Your task to perform on an android device: Add jbl charge 4 to the cart on target, then select checkout. Image 0: 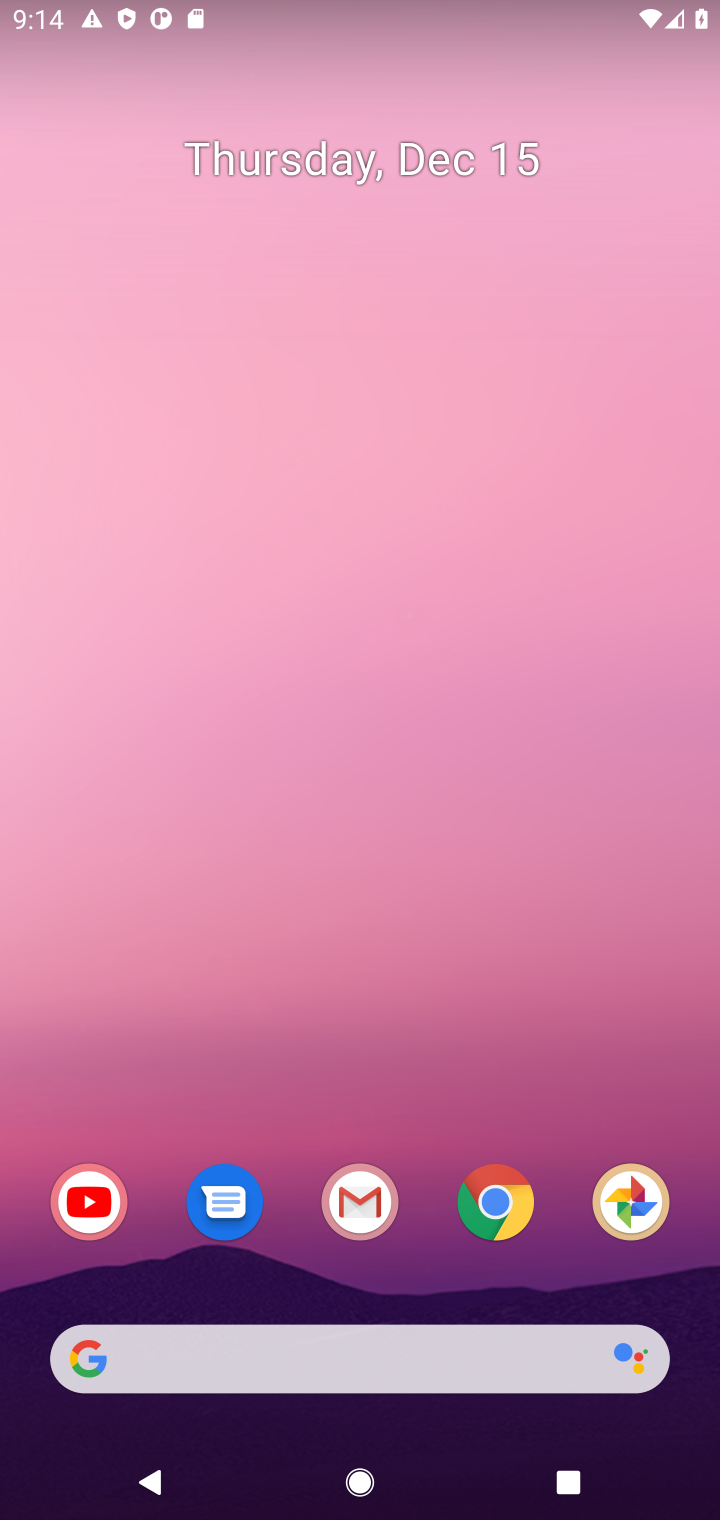
Step 0: click (494, 1202)
Your task to perform on an android device: Add jbl charge 4 to the cart on target, then select checkout. Image 1: 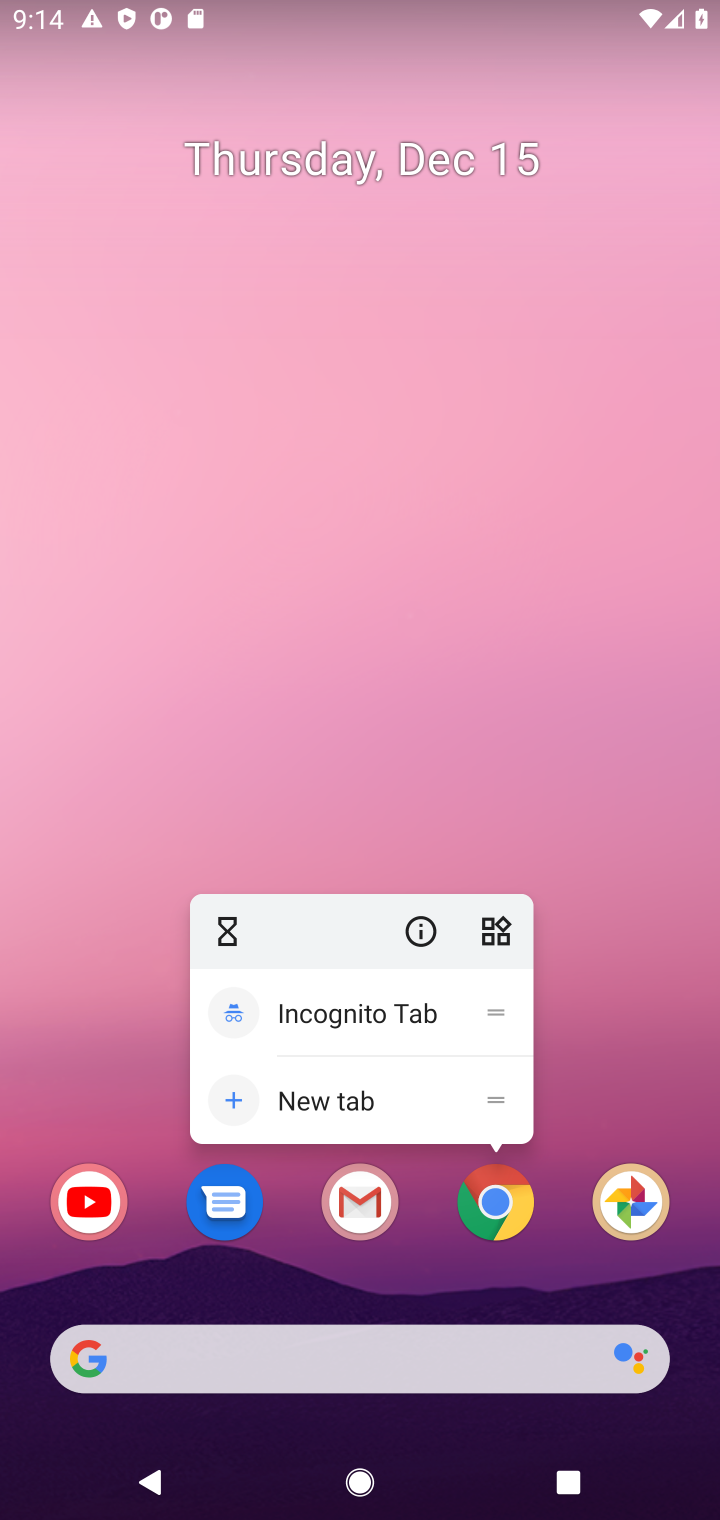
Step 1: click (494, 1202)
Your task to perform on an android device: Add jbl charge 4 to the cart on target, then select checkout. Image 2: 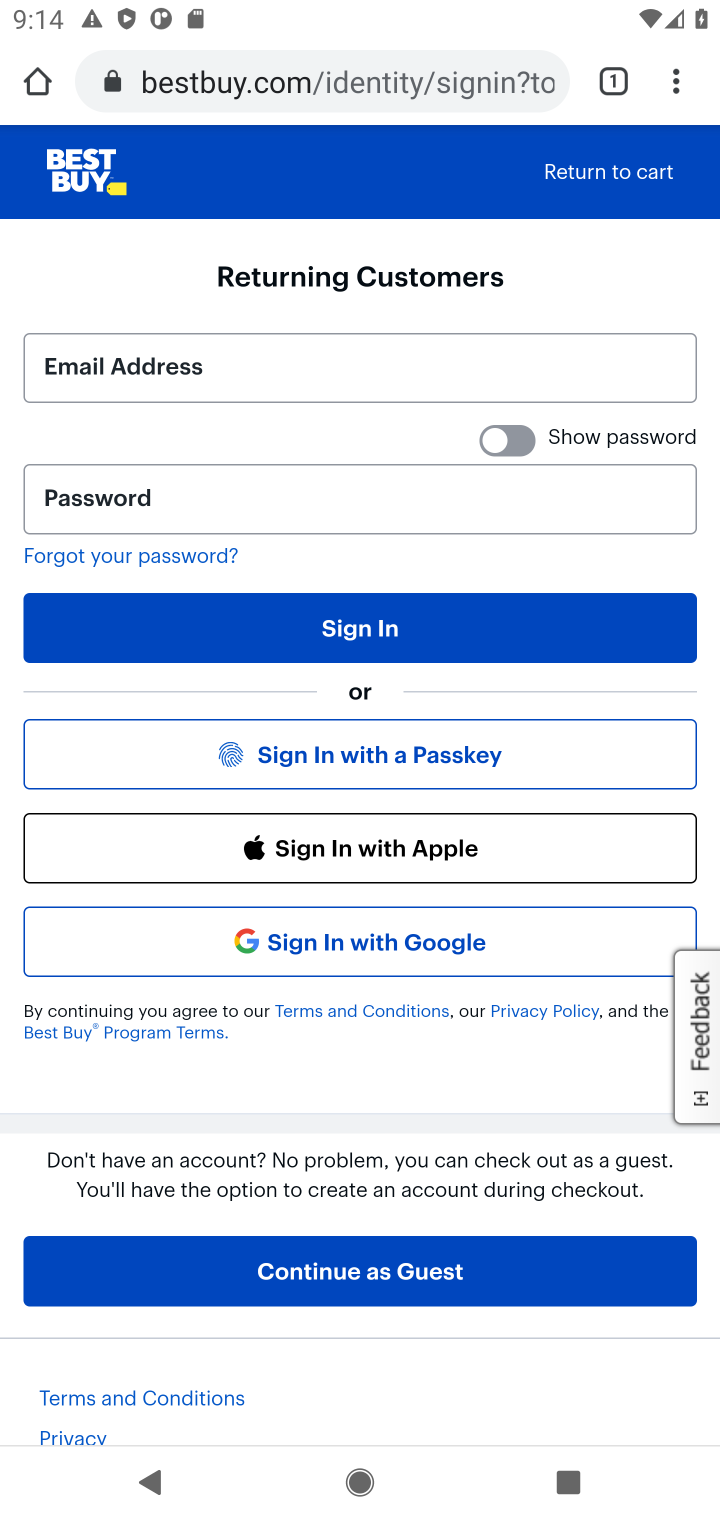
Step 2: click (282, 90)
Your task to perform on an android device: Add jbl charge 4 to the cart on target, then select checkout. Image 3: 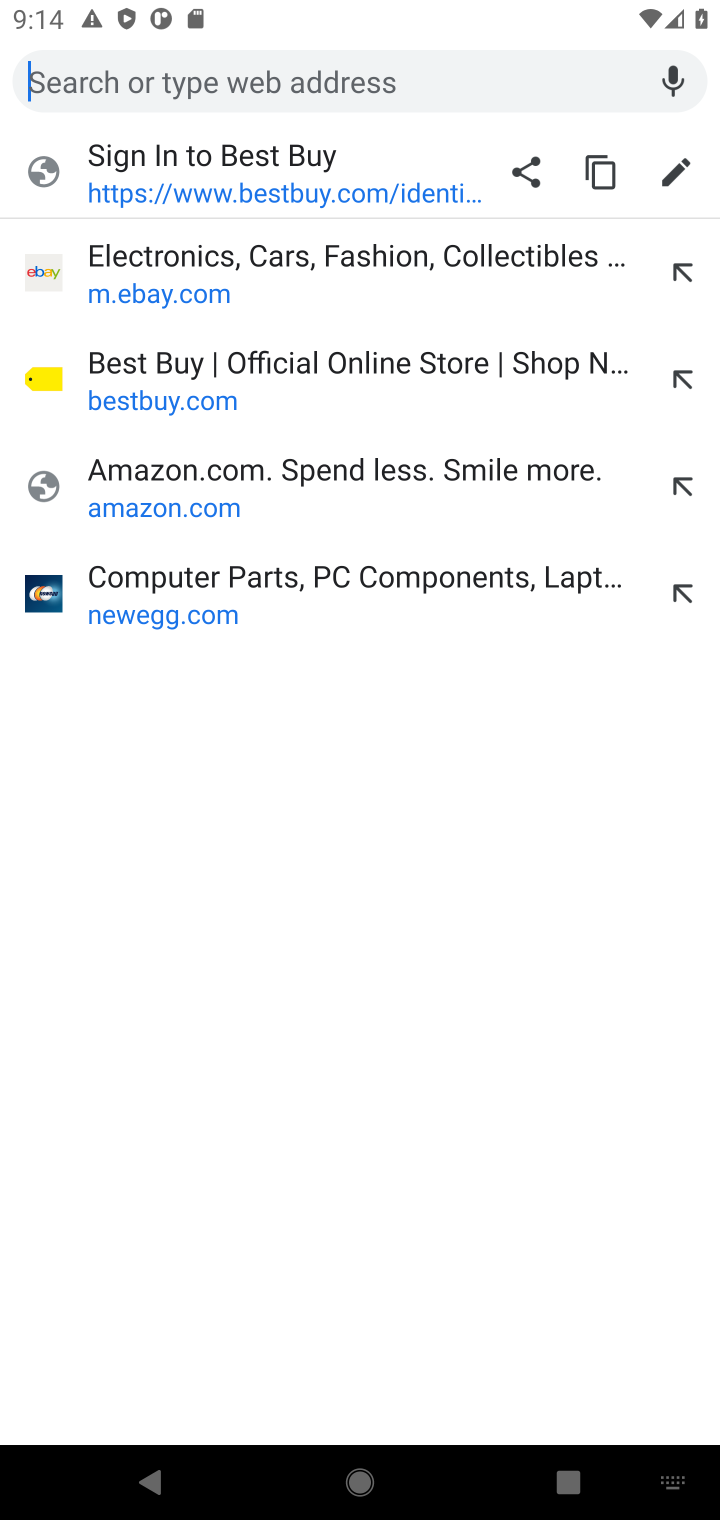
Step 3: type "target.com"
Your task to perform on an android device: Add jbl charge 4 to the cart on target, then select checkout. Image 4: 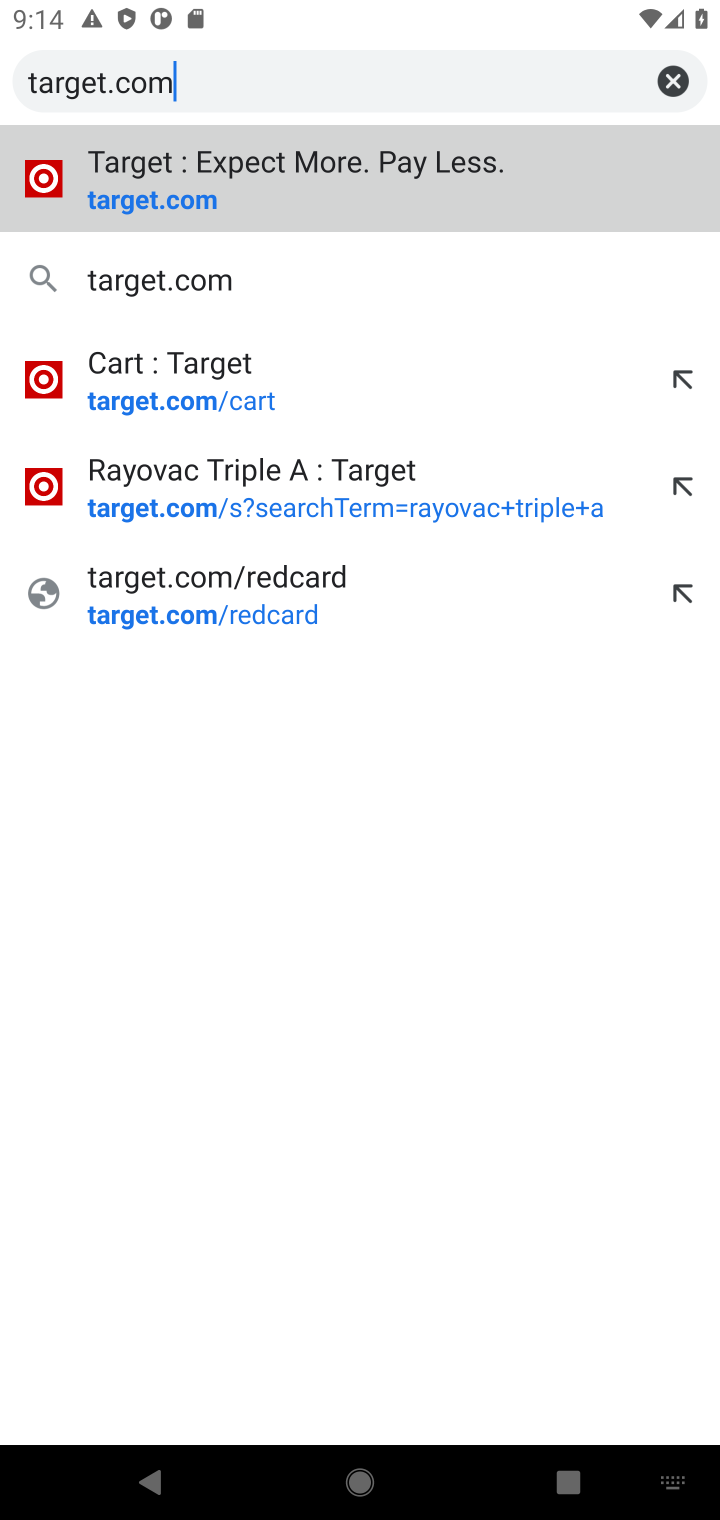
Step 4: click (155, 221)
Your task to perform on an android device: Add jbl charge 4 to the cart on target, then select checkout. Image 5: 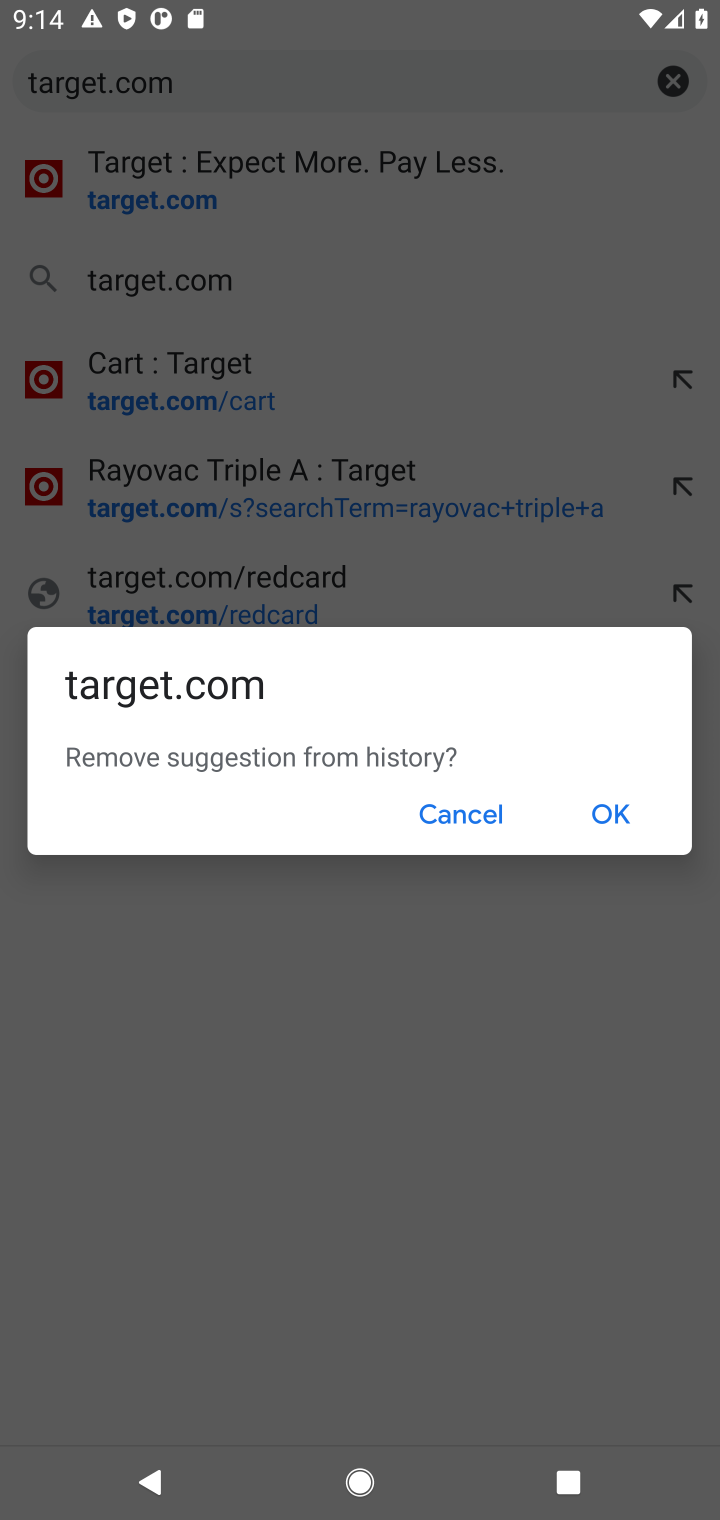
Step 5: click (463, 812)
Your task to perform on an android device: Add jbl charge 4 to the cart on target, then select checkout. Image 6: 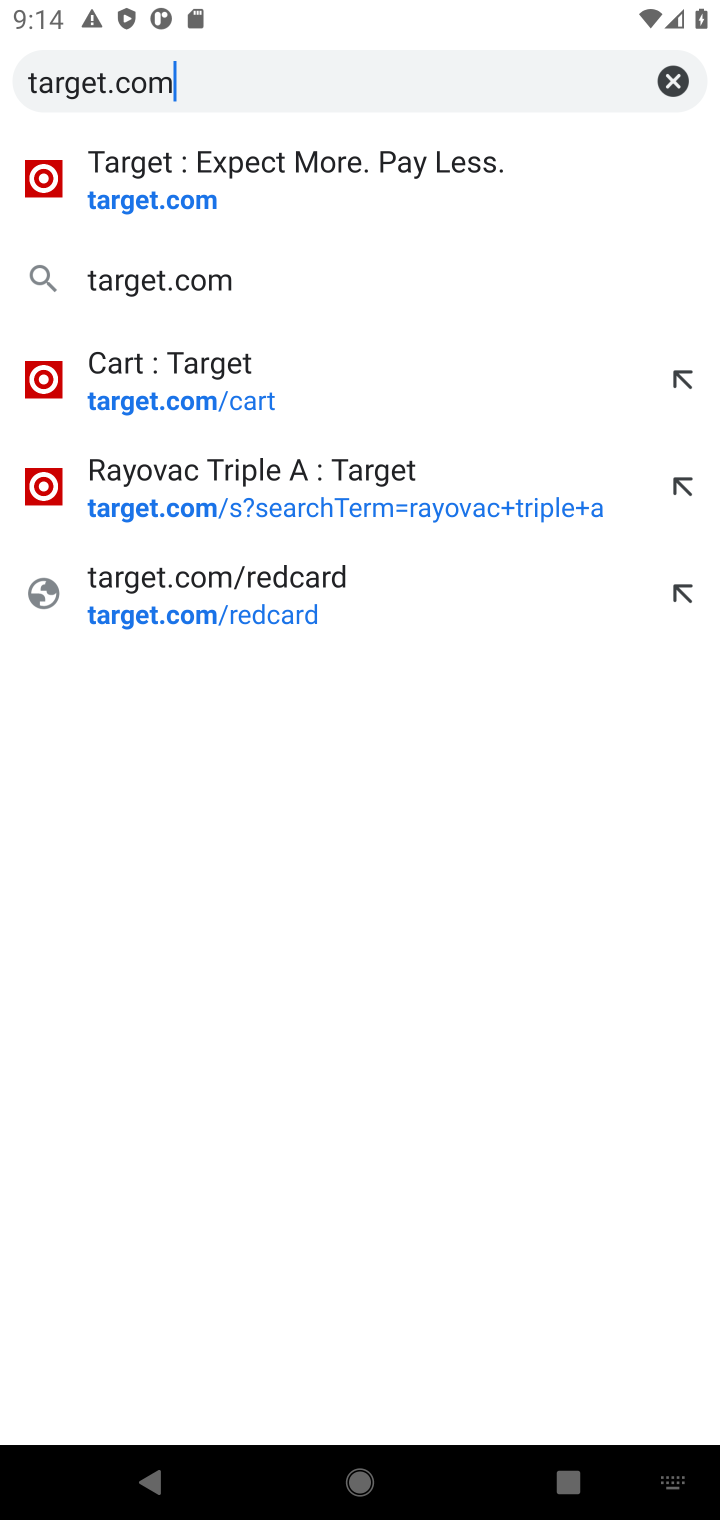
Step 6: click (107, 211)
Your task to perform on an android device: Add jbl charge 4 to the cart on target, then select checkout. Image 7: 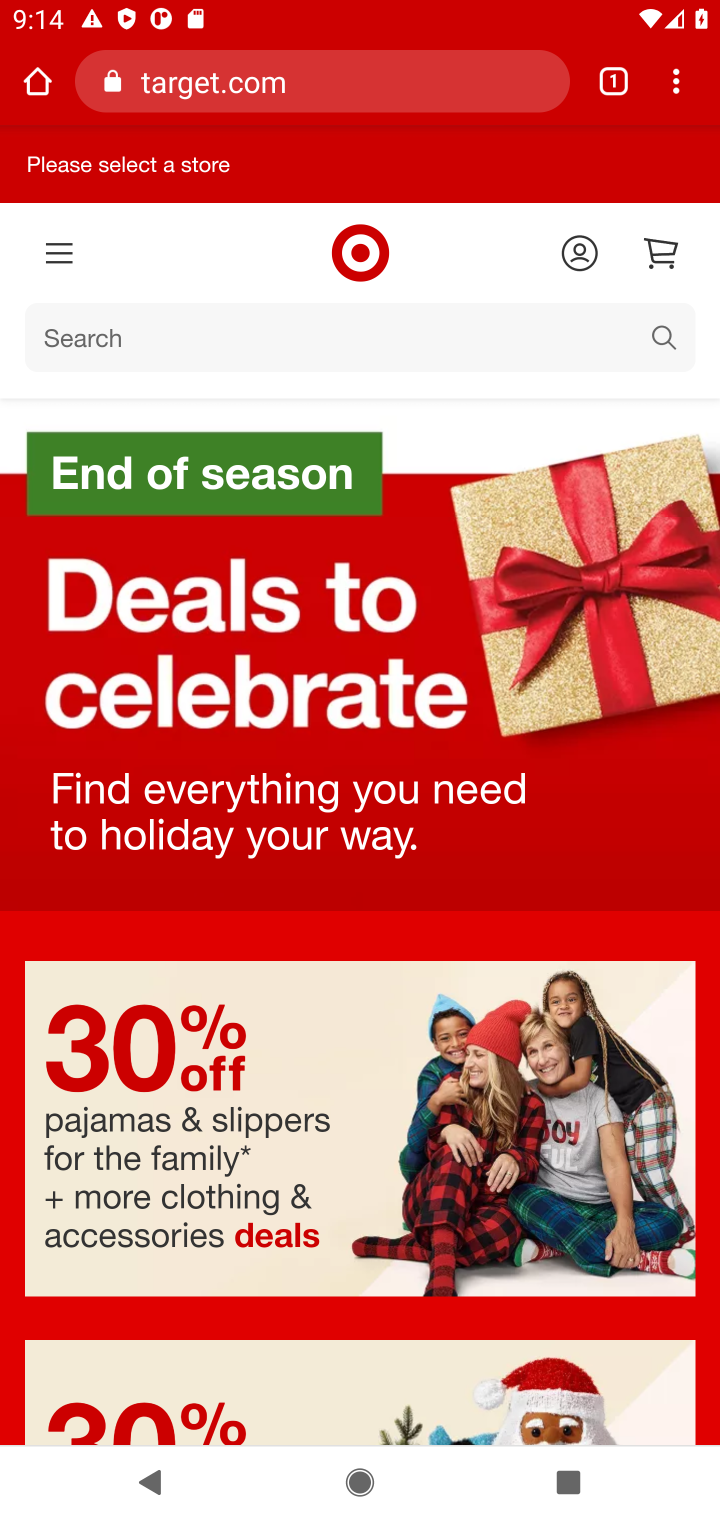
Step 7: click (73, 337)
Your task to perform on an android device: Add jbl charge 4 to the cart on target, then select checkout. Image 8: 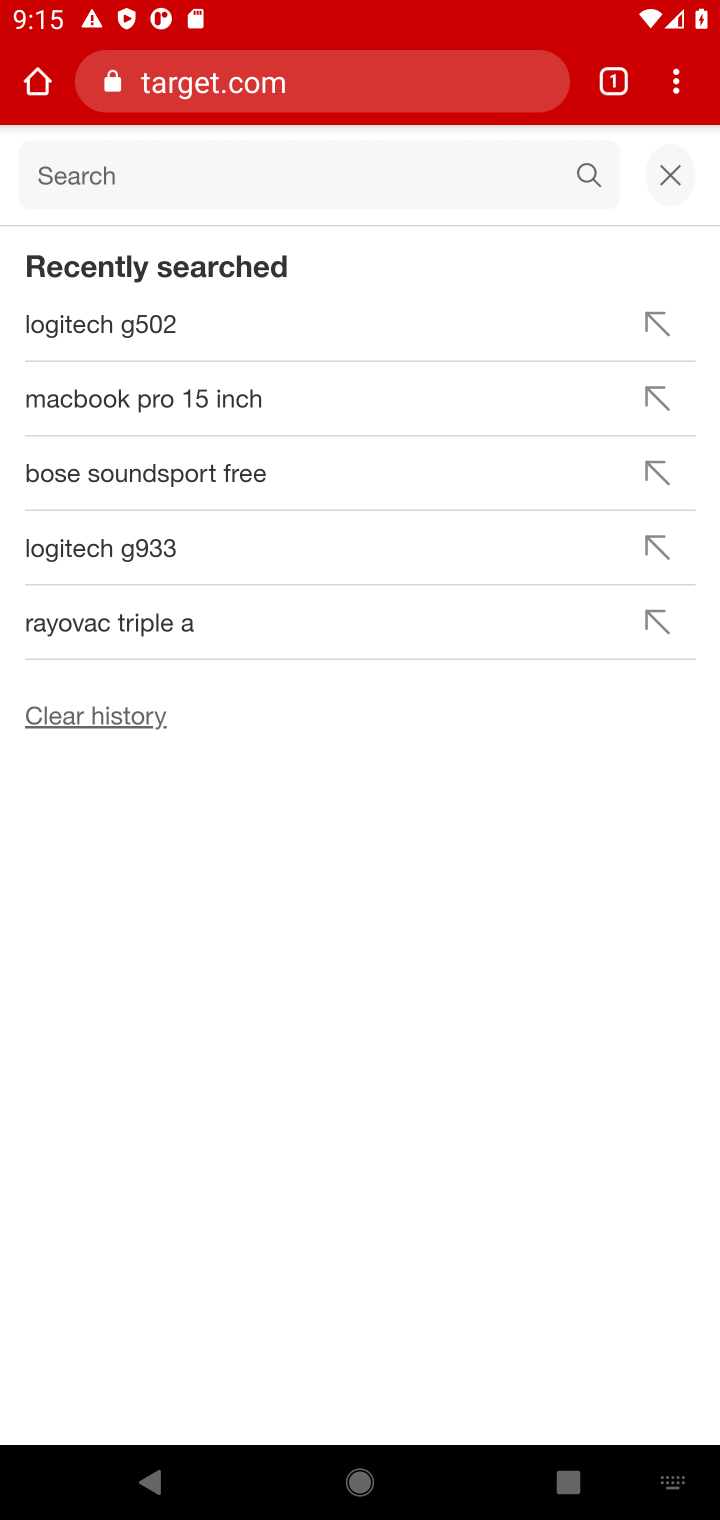
Step 8: type "jbl charge 4"
Your task to perform on an android device: Add jbl charge 4 to the cart on target, then select checkout. Image 9: 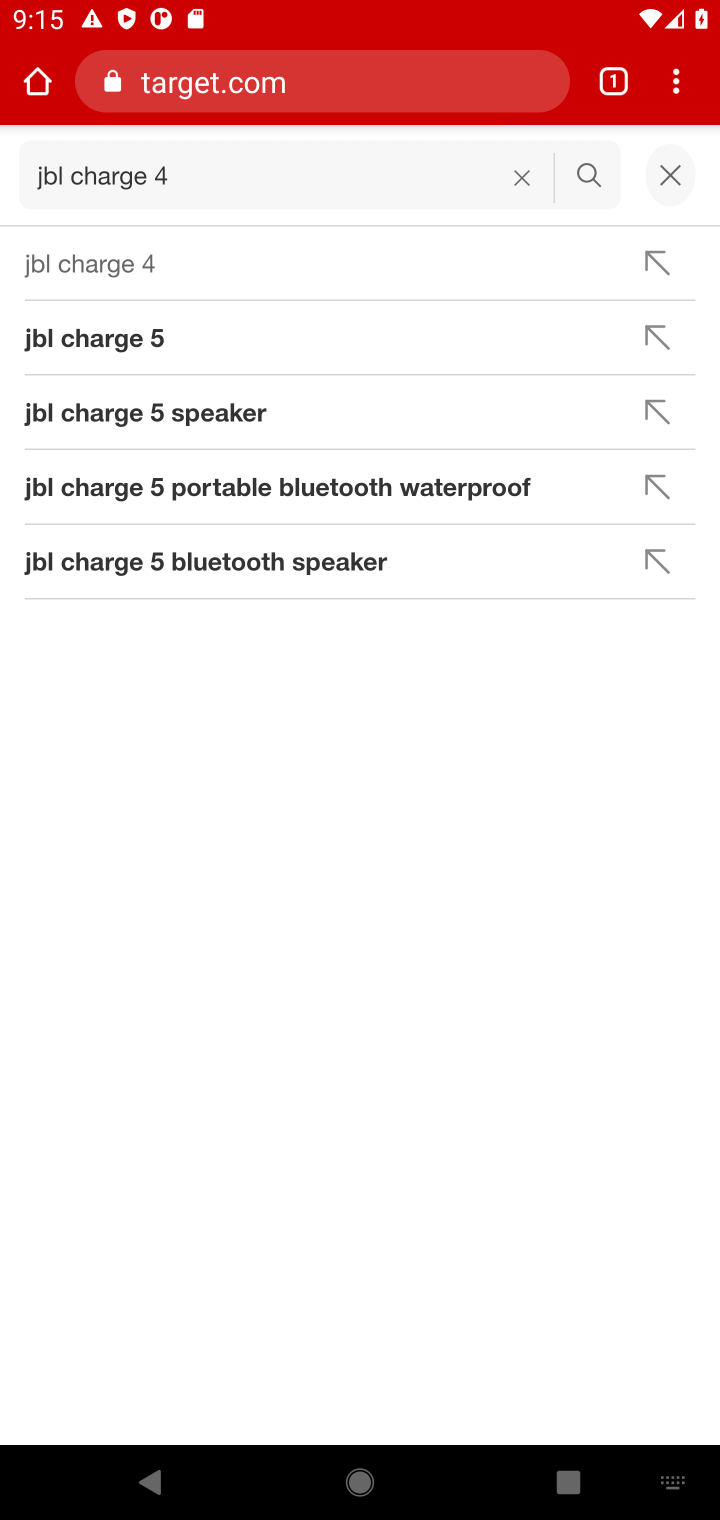
Step 9: click (94, 263)
Your task to perform on an android device: Add jbl charge 4 to the cart on target, then select checkout. Image 10: 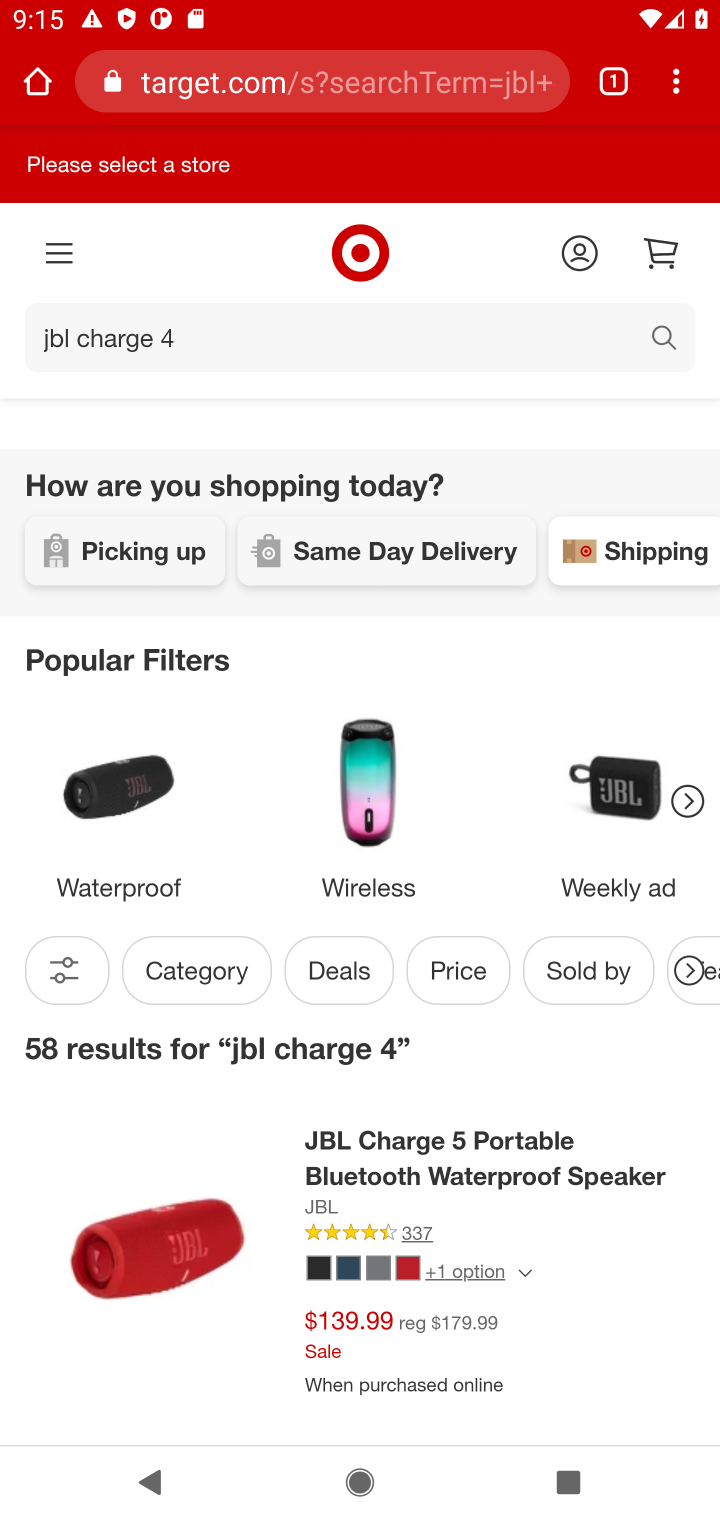
Step 10: drag from (216, 1058) to (224, 592)
Your task to perform on an android device: Add jbl charge 4 to the cart on target, then select checkout. Image 11: 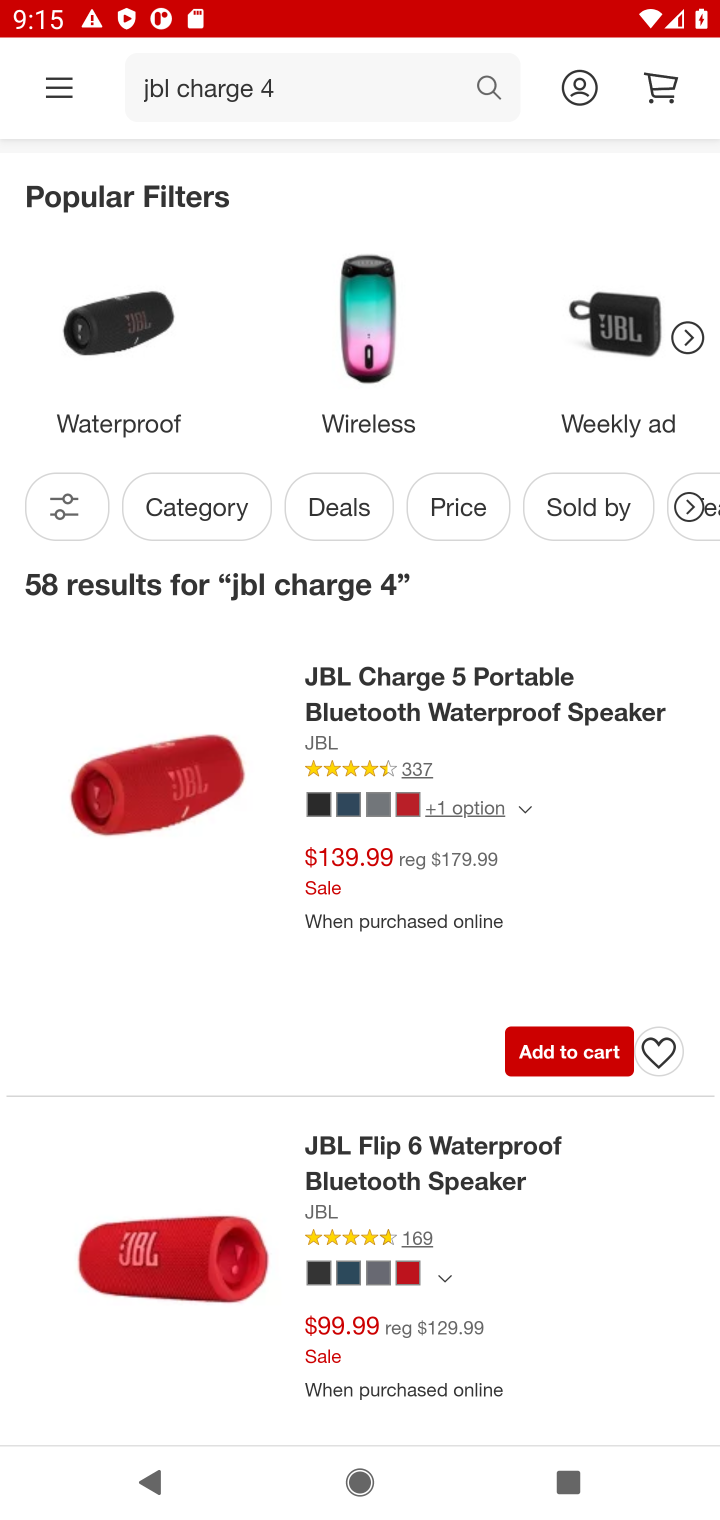
Step 11: drag from (198, 959) to (228, 603)
Your task to perform on an android device: Add jbl charge 4 to the cart on target, then select checkout. Image 12: 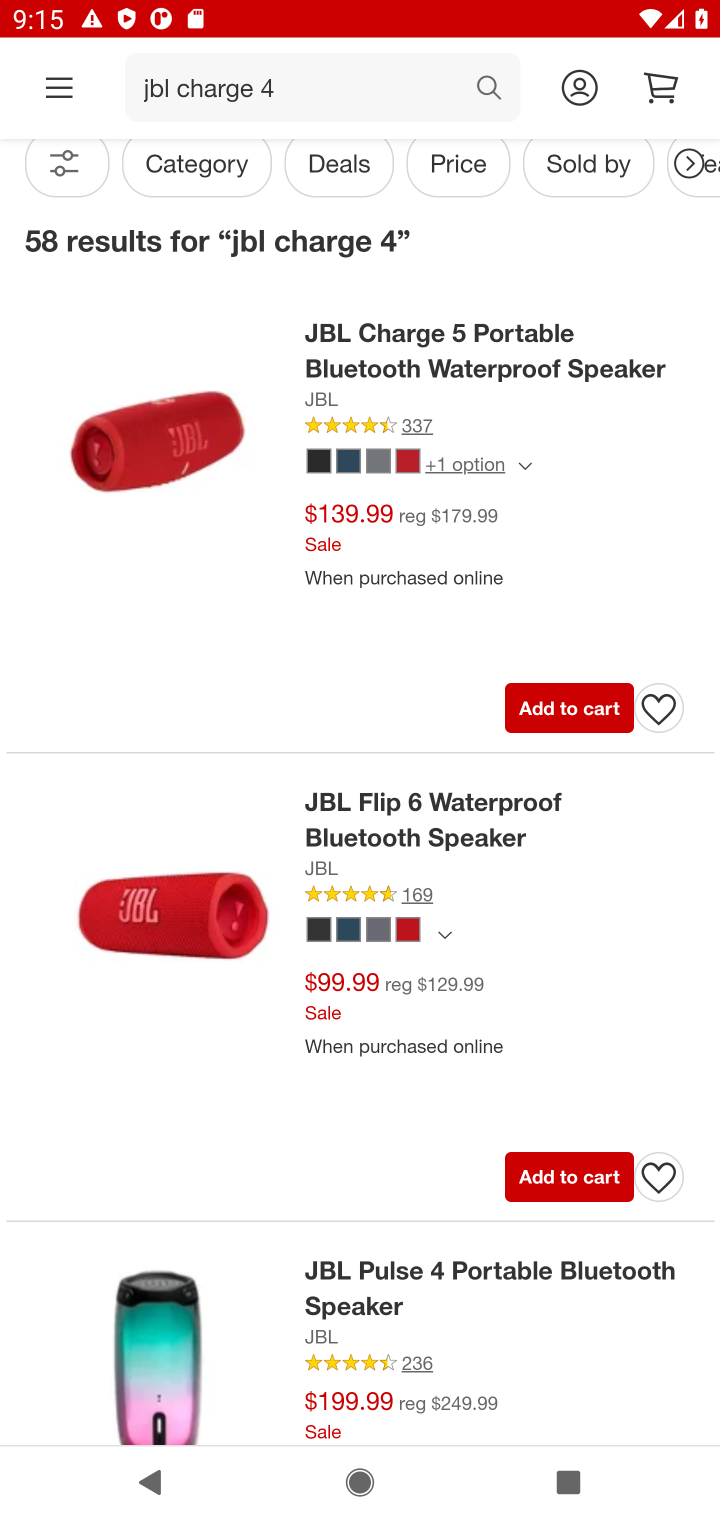
Step 12: drag from (201, 1078) to (223, 476)
Your task to perform on an android device: Add jbl charge 4 to the cart on target, then select checkout. Image 13: 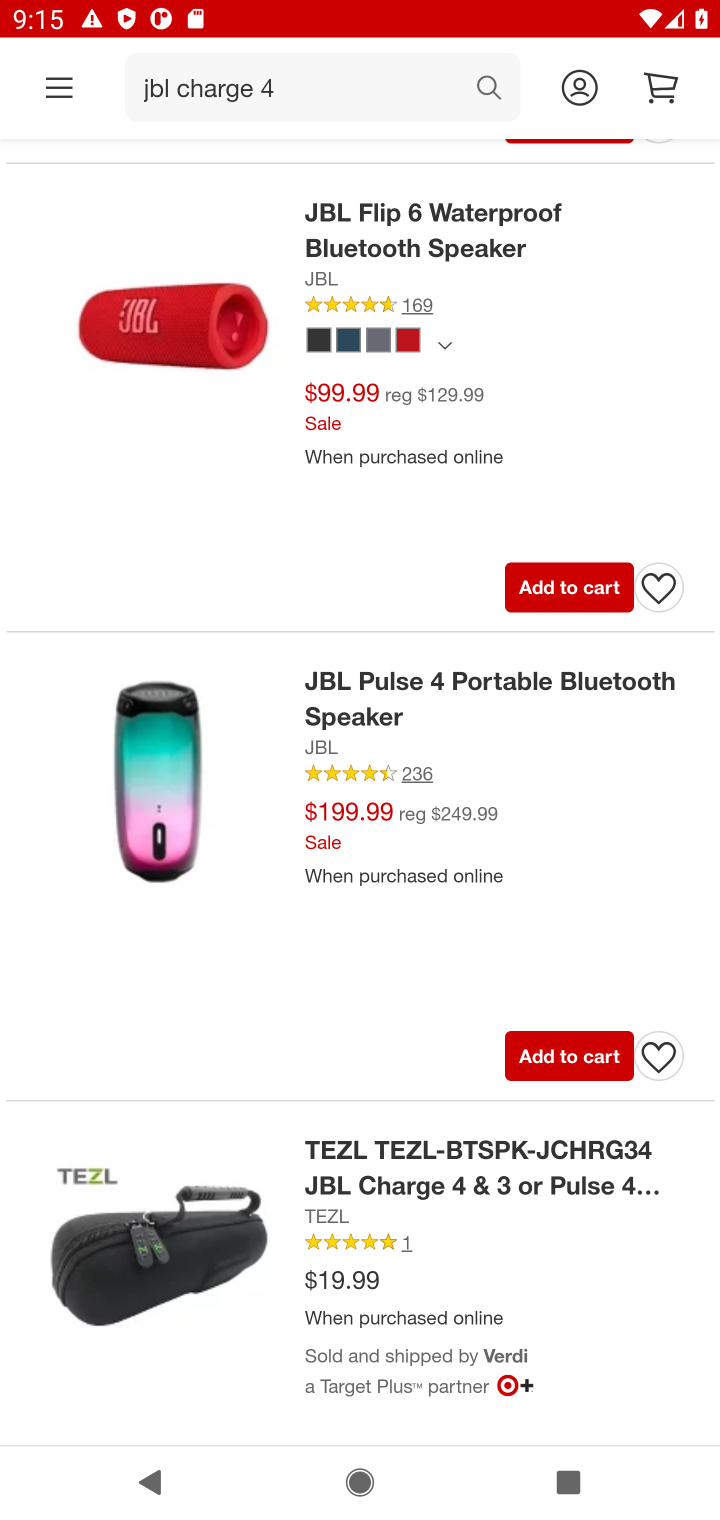
Step 13: drag from (193, 1080) to (215, 665)
Your task to perform on an android device: Add jbl charge 4 to the cart on target, then select checkout. Image 14: 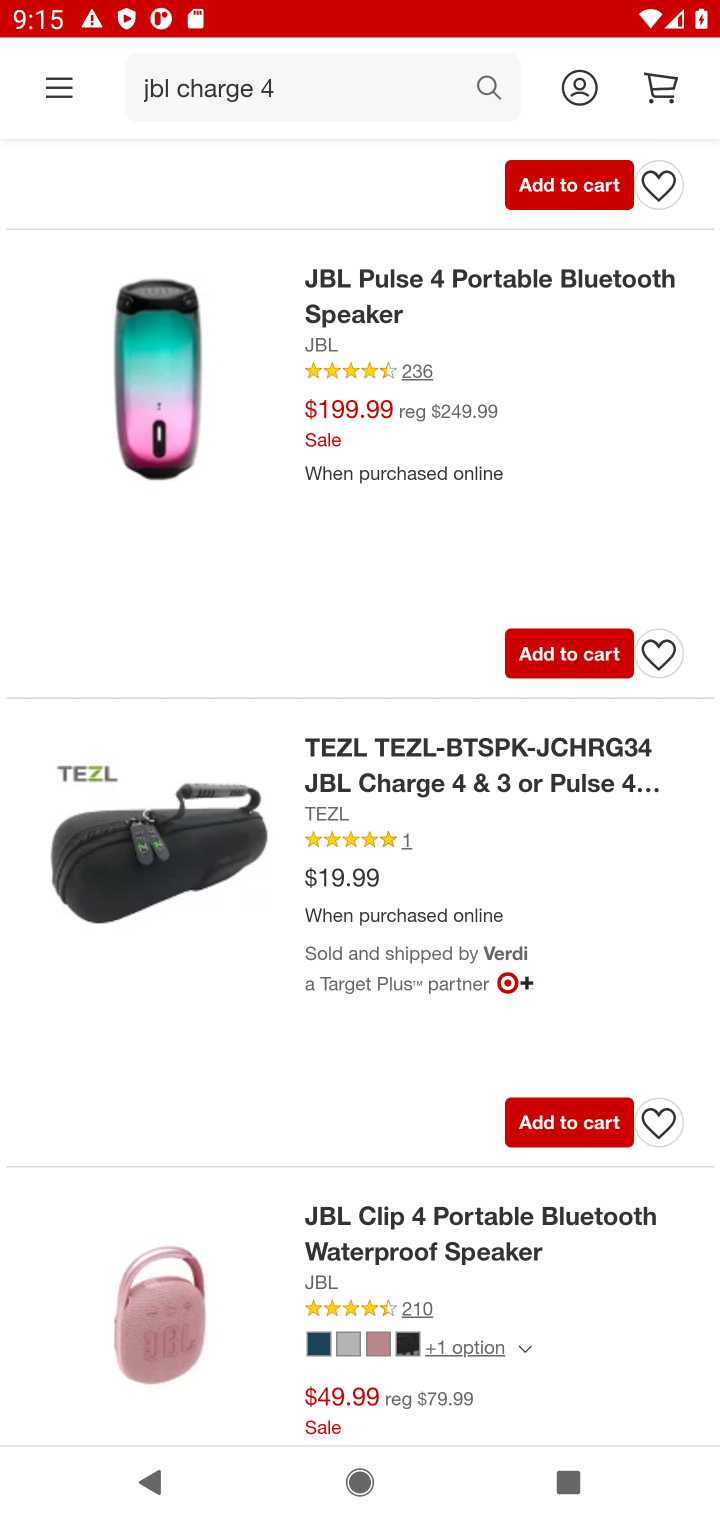
Step 14: click (562, 1116)
Your task to perform on an android device: Add jbl charge 4 to the cart on target, then select checkout. Image 15: 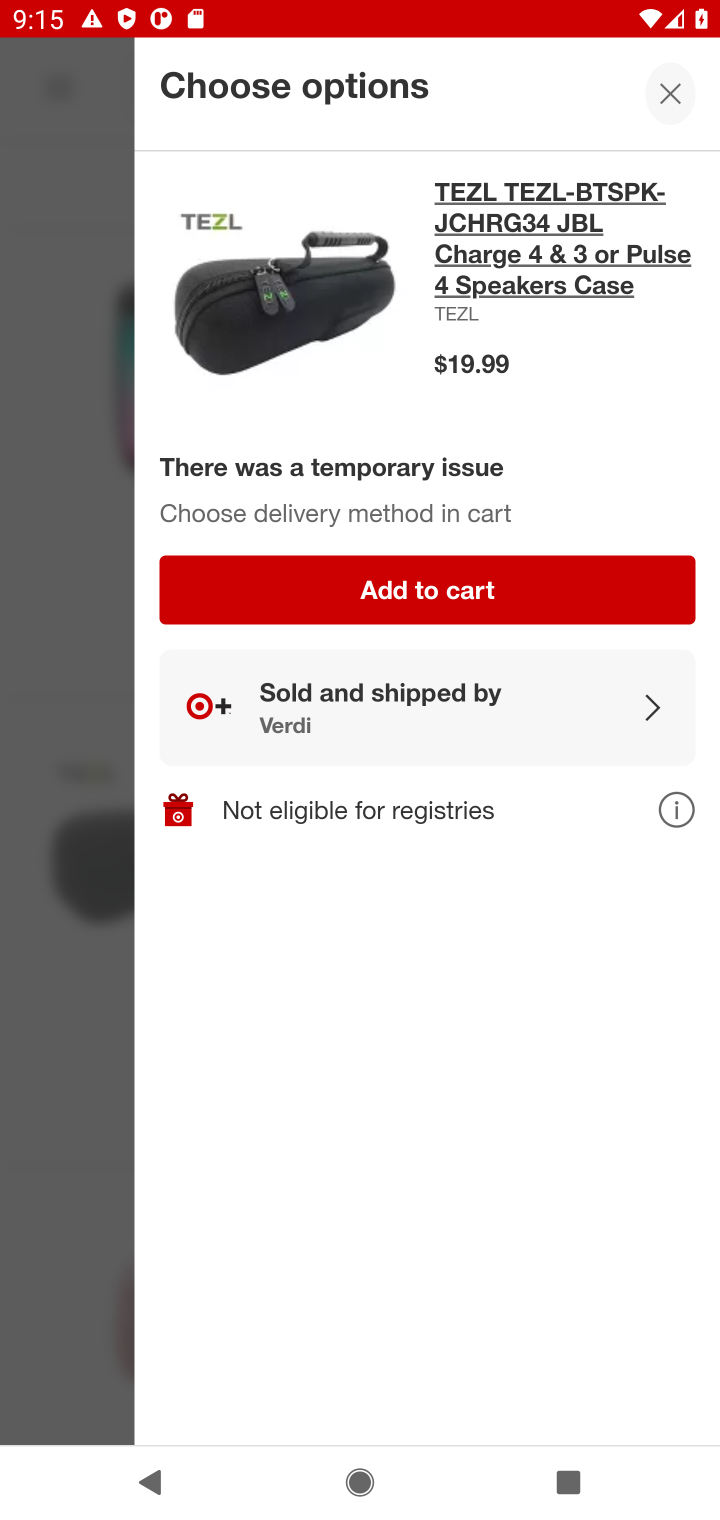
Step 15: click (379, 606)
Your task to perform on an android device: Add jbl charge 4 to the cart on target, then select checkout. Image 16: 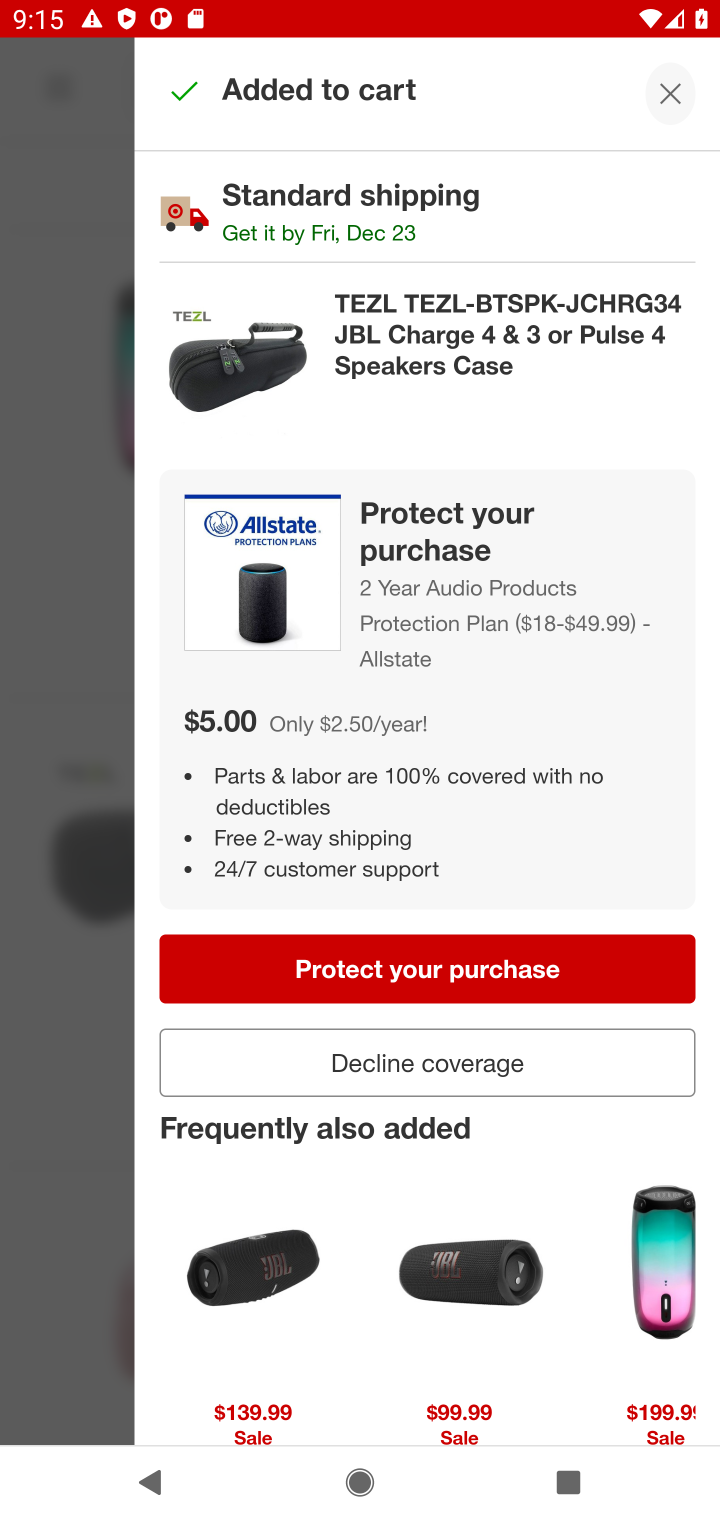
Step 16: click (673, 104)
Your task to perform on an android device: Add jbl charge 4 to the cart on target, then select checkout. Image 17: 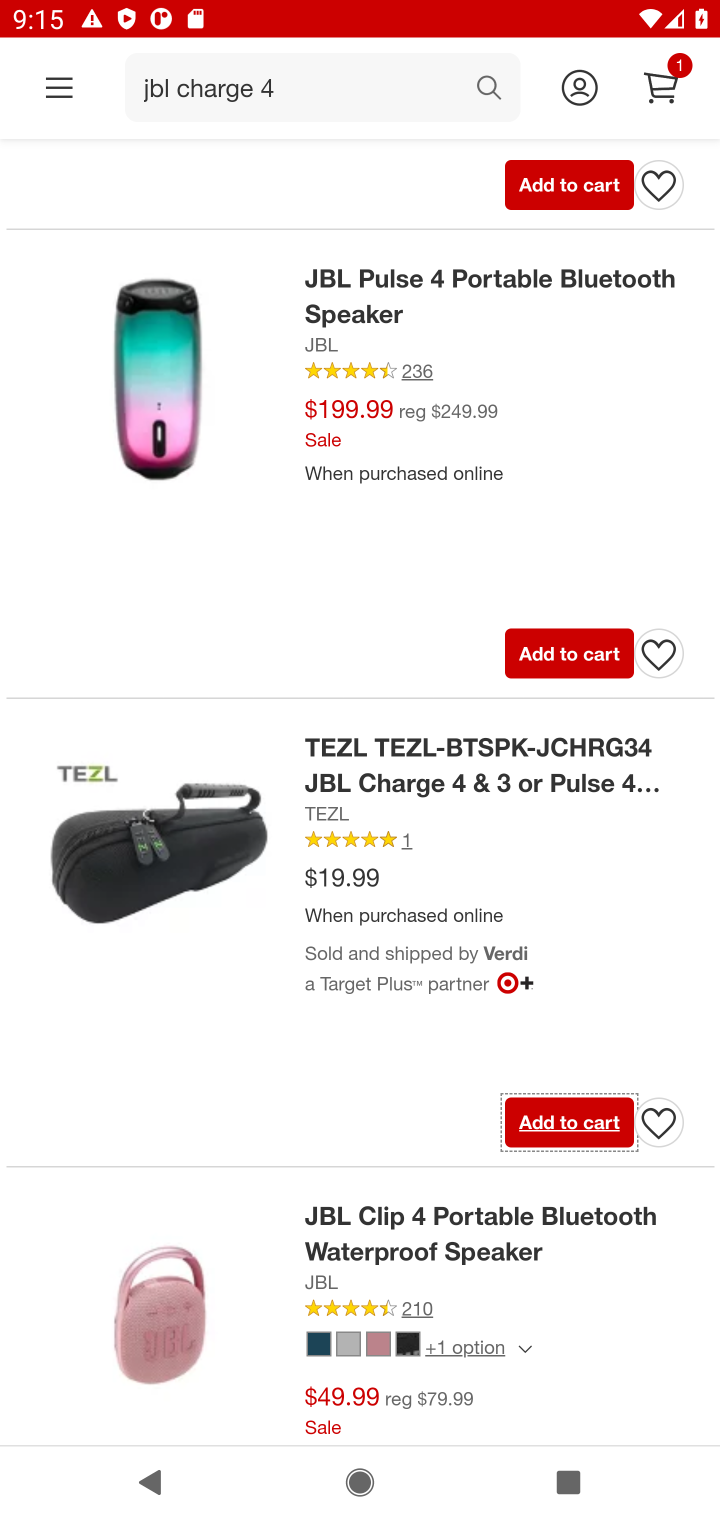
Step 17: click (664, 82)
Your task to perform on an android device: Add jbl charge 4 to the cart on target, then select checkout. Image 18: 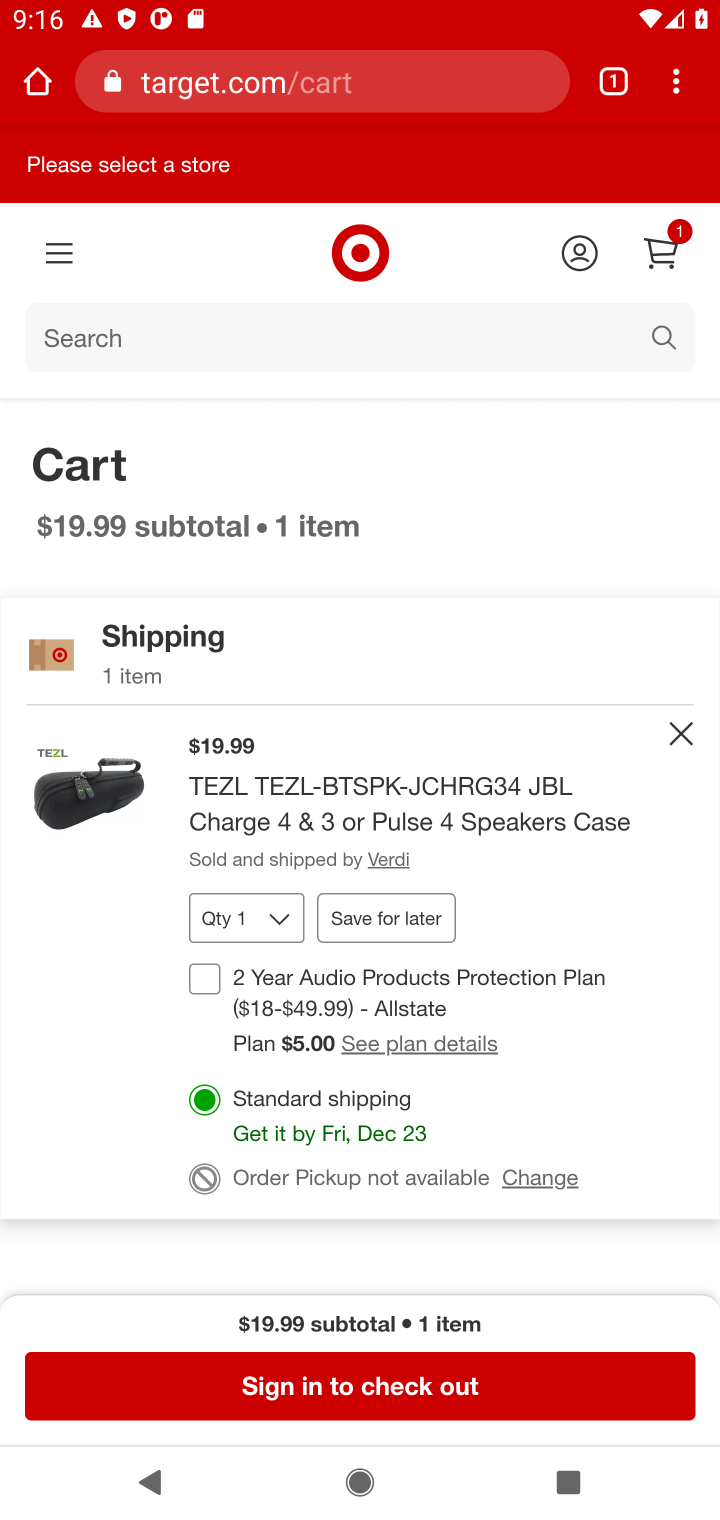
Step 18: click (321, 1388)
Your task to perform on an android device: Add jbl charge 4 to the cart on target, then select checkout. Image 19: 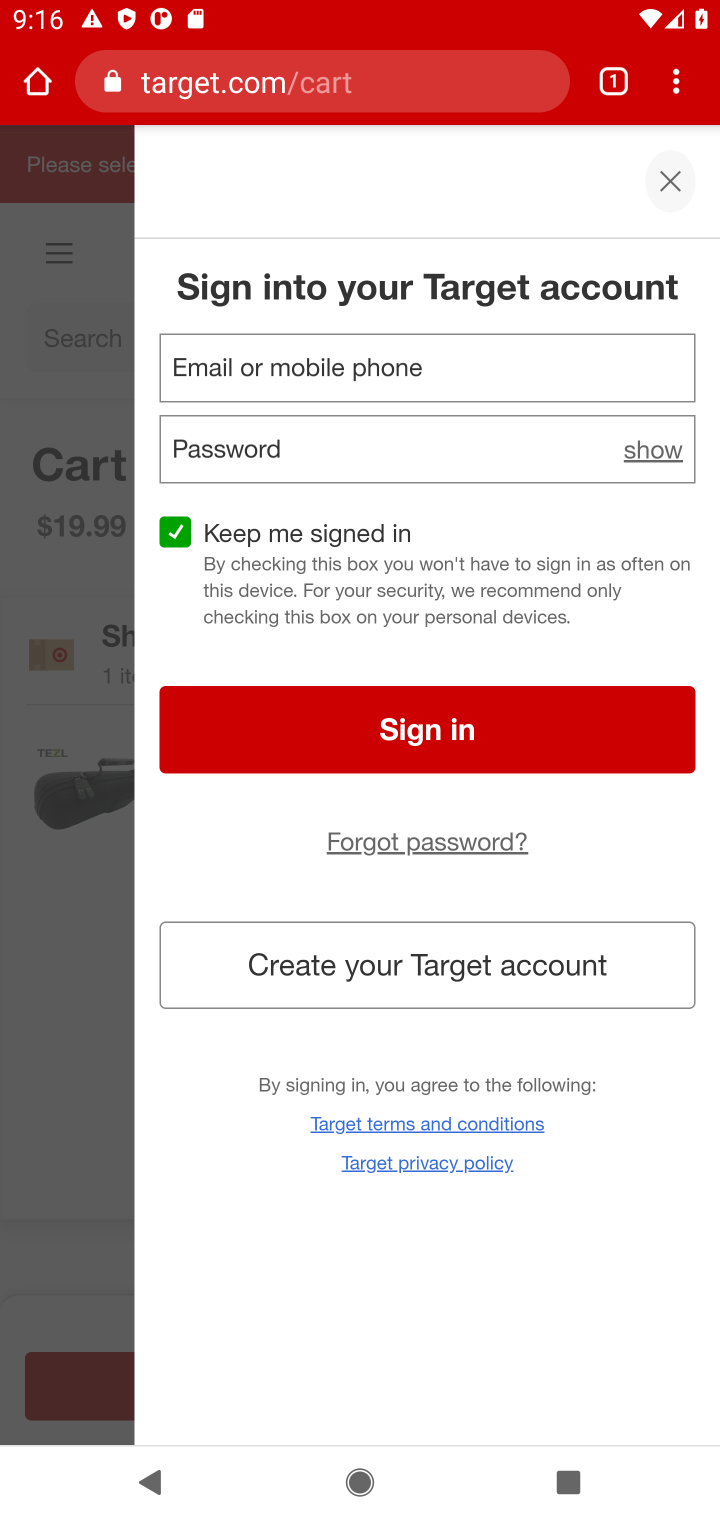
Step 19: task complete